Your task to perform on an android device: Play the last video I watched on Youtube Image 0: 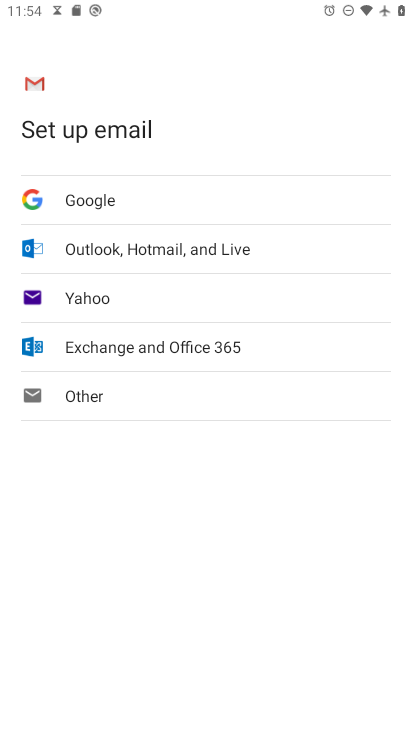
Step 0: press home button
Your task to perform on an android device: Play the last video I watched on Youtube Image 1: 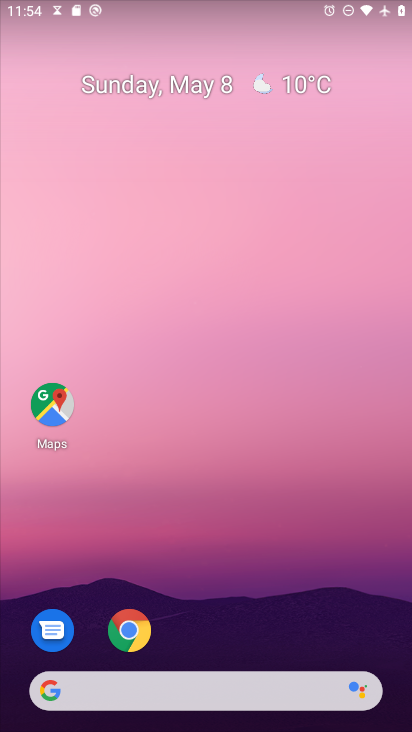
Step 1: drag from (139, 695) to (321, 132)
Your task to perform on an android device: Play the last video I watched on Youtube Image 2: 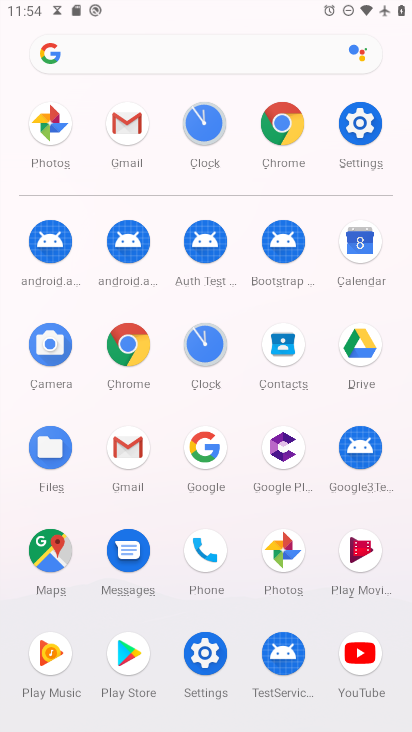
Step 2: click (359, 662)
Your task to perform on an android device: Play the last video I watched on Youtube Image 3: 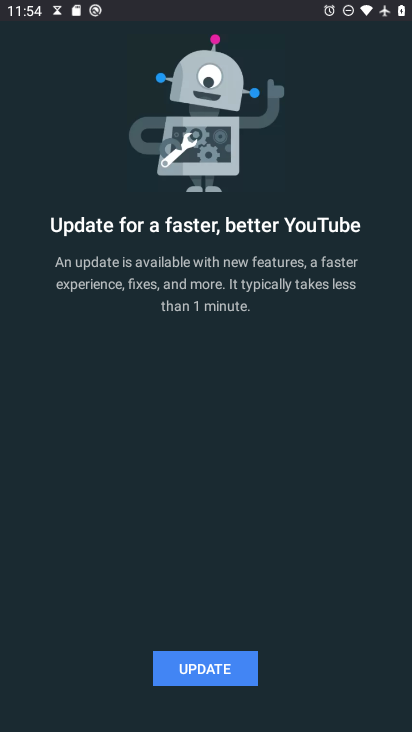
Step 3: click (196, 671)
Your task to perform on an android device: Play the last video I watched on Youtube Image 4: 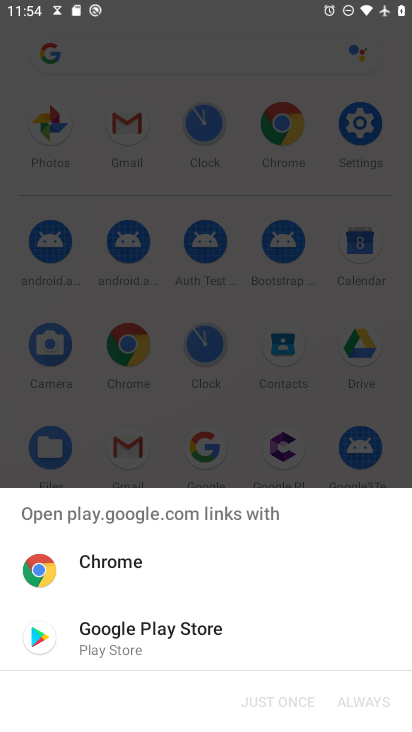
Step 4: click (193, 621)
Your task to perform on an android device: Play the last video I watched on Youtube Image 5: 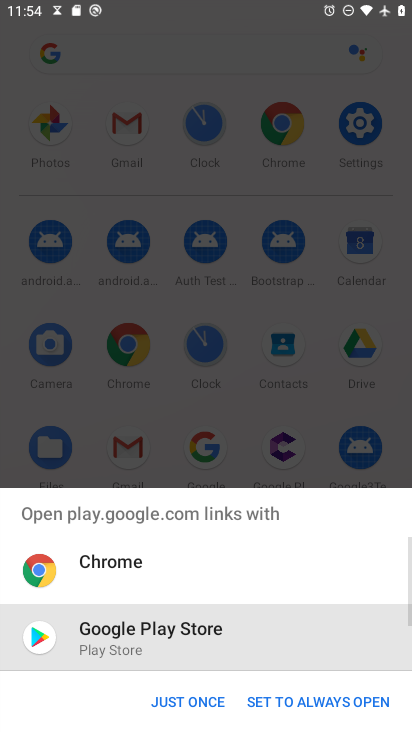
Step 5: click (167, 713)
Your task to perform on an android device: Play the last video I watched on Youtube Image 6: 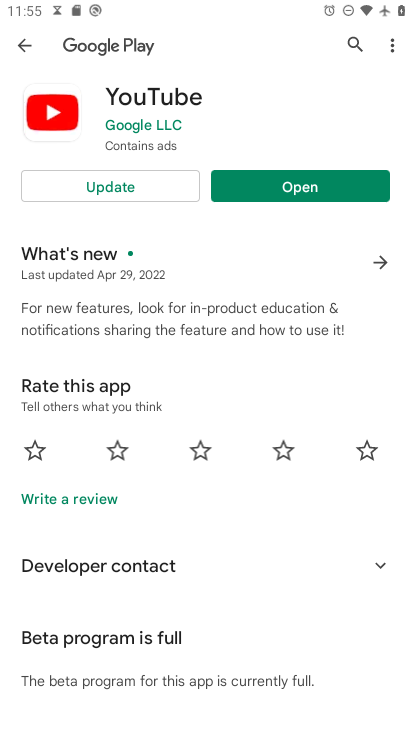
Step 6: click (151, 179)
Your task to perform on an android device: Play the last video I watched on Youtube Image 7: 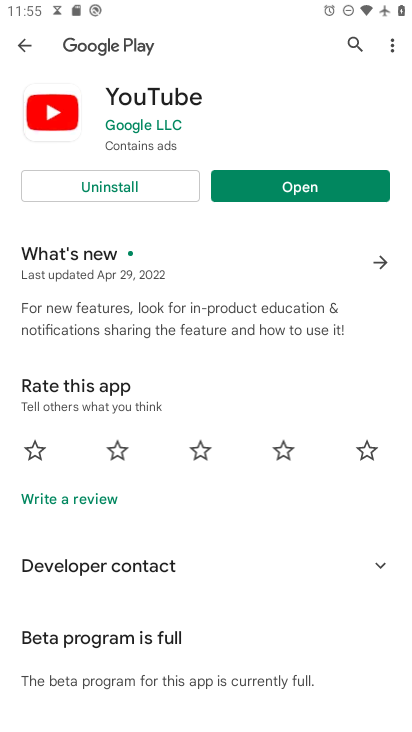
Step 7: click (301, 189)
Your task to perform on an android device: Play the last video I watched on Youtube Image 8: 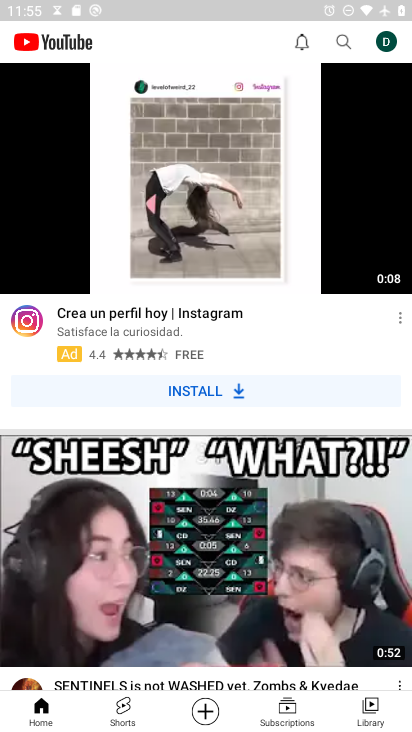
Step 8: click (367, 710)
Your task to perform on an android device: Play the last video I watched on Youtube Image 9: 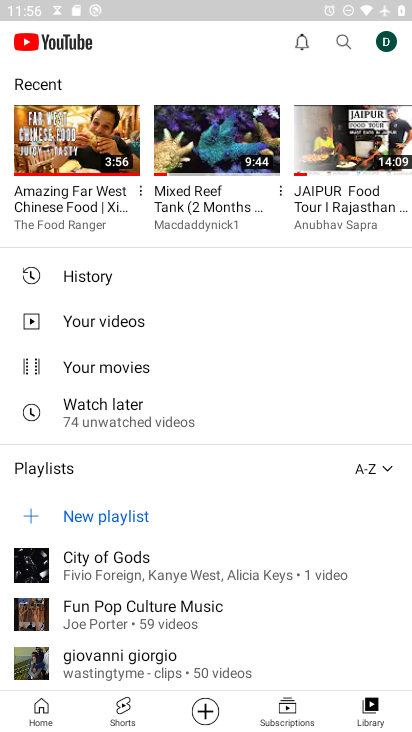
Step 9: click (101, 147)
Your task to perform on an android device: Play the last video I watched on Youtube Image 10: 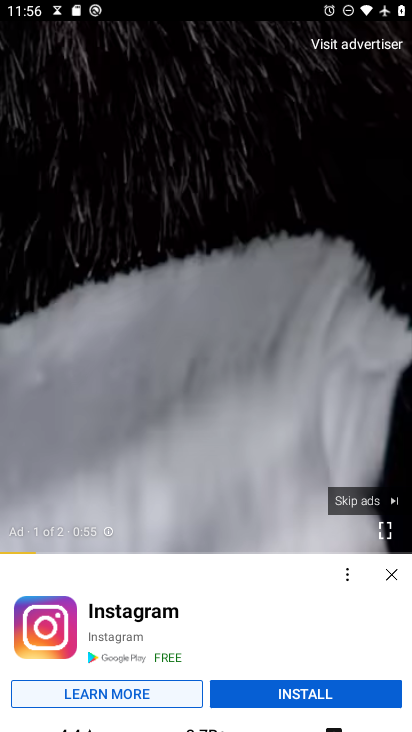
Step 10: task complete